Your task to perform on an android device: Open the web browser Image 0: 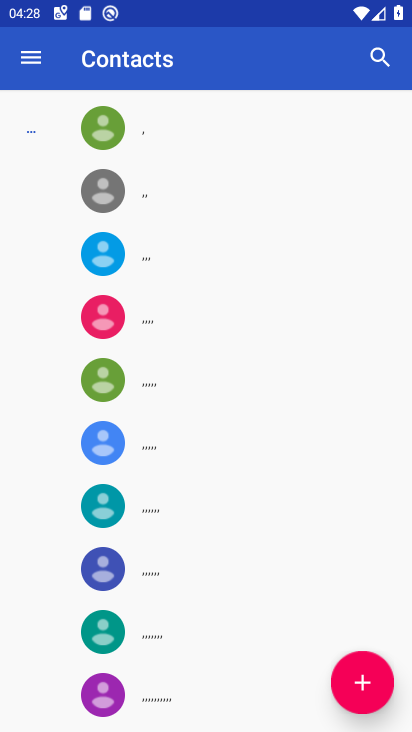
Step 0: press home button
Your task to perform on an android device: Open the web browser Image 1: 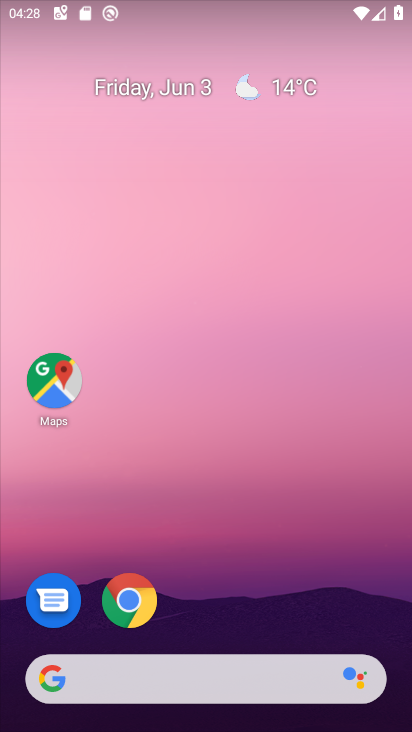
Step 1: click (134, 605)
Your task to perform on an android device: Open the web browser Image 2: 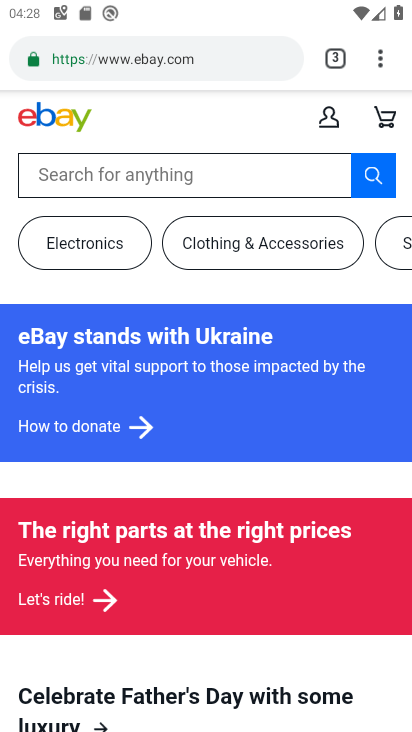
Step 2: task complete